Your task to perform on an android device: Open Google Maps and go to "Timeline" Image 0: 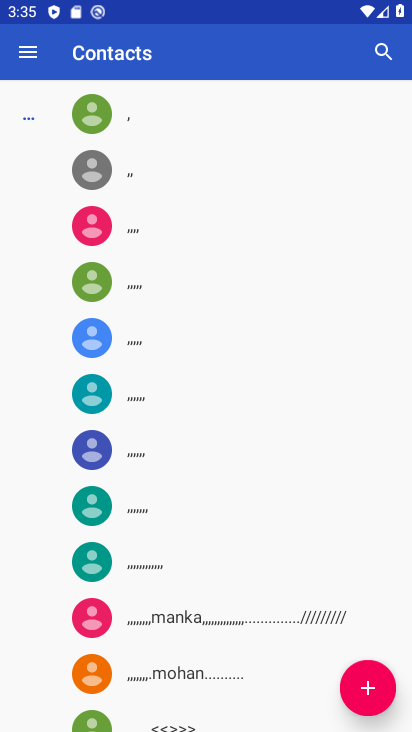
Step 0: press home button
Your task to perform on an android device: Open Google Maps and go to "Timeline" Image 1: 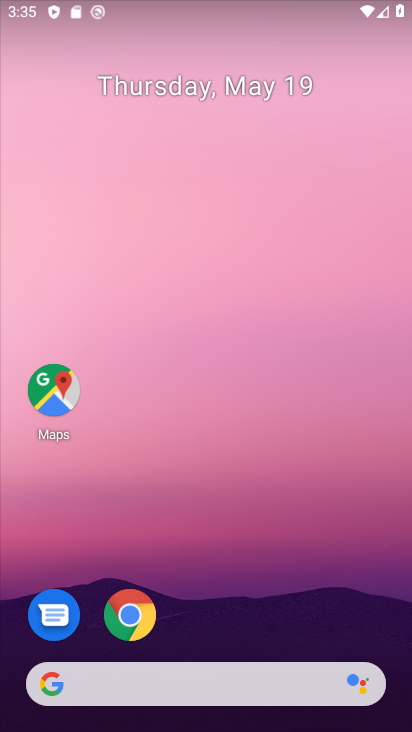
Step 1: click (52, 396)
Your task to perform on an android device: Open Google Maps and go to "Timeline" Image 2: 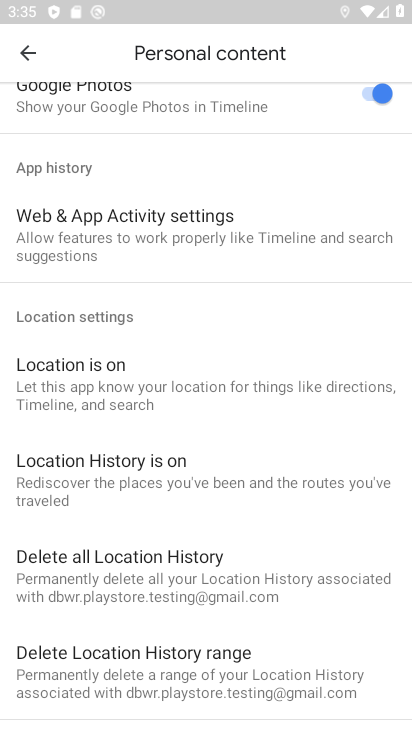
Step 2: click (20, 55)
Your task to perform on an android device: Open Google Maps and go to "Timeline" Image 3: 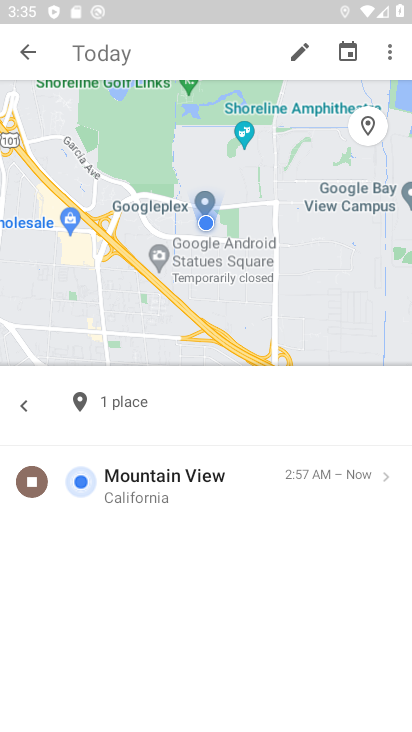
Step 3: task complete